Your task to perform on an android device: add a label to a message in the gmail app Image 0: 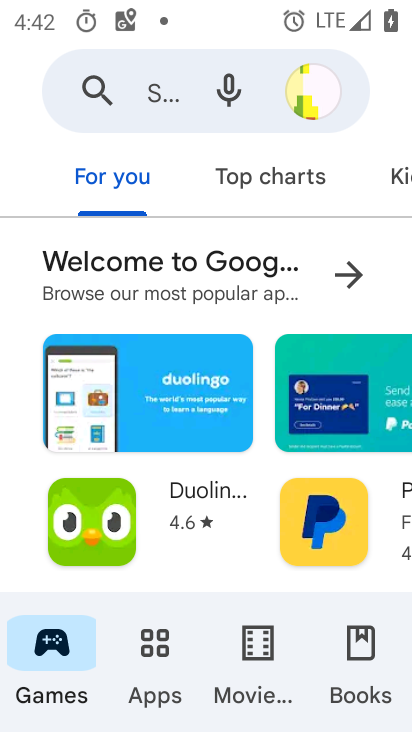
Step 0: press back button
Your task to perform on an android device: add a label to a message in the gmail app Image 1: 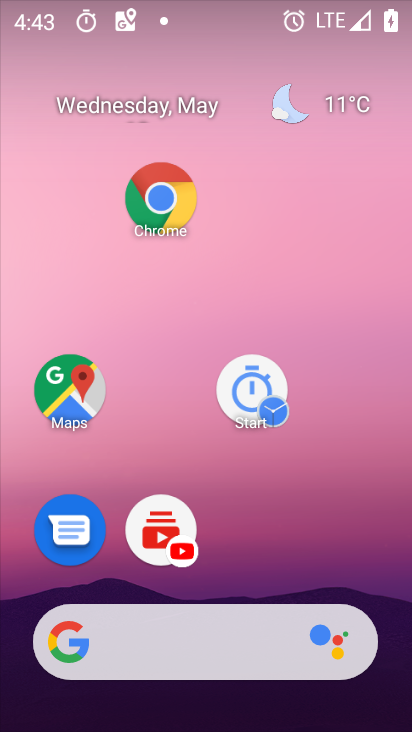
Step 1: drag from (303, 600) to (160, 148)
Your task to perform on an android device: add a label to a message in the gmail app Image 2: 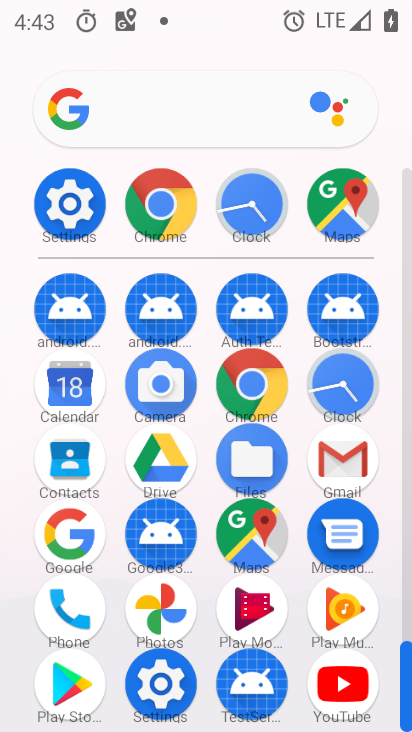
Step 2: click (355, 448)
Your task to perform on an android device: add a label to a message in the gmail app Image 3: 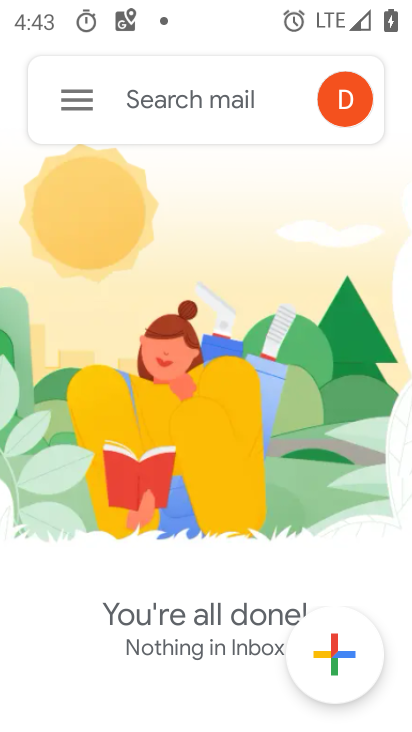
Step 3: click (76, 108)
Your task to perform on an android device: add a label to a message in the gmail app Image 4: 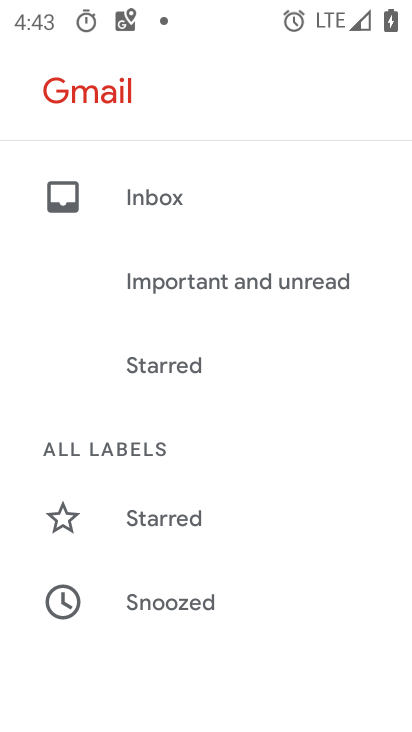
Step 4: drag from (186, 556) to (118, 146)
Your task to perform on an android device: add a label to a message in the gmail app Image 5: 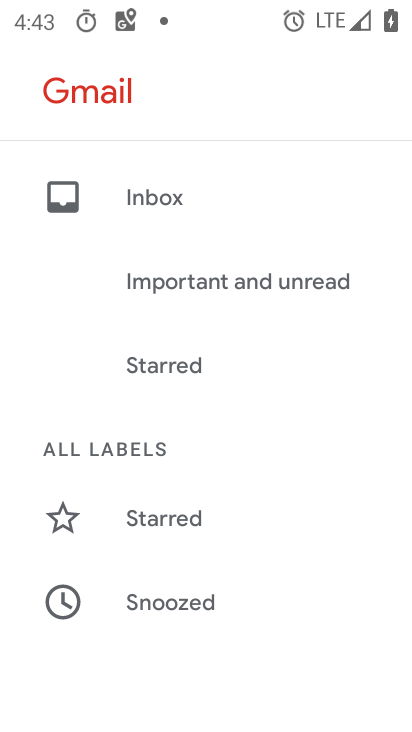
Step 5: drag from (203, 409) to (202, 127)
Your task to perform on an android device: add a label to a message in the gmail app Image 6: 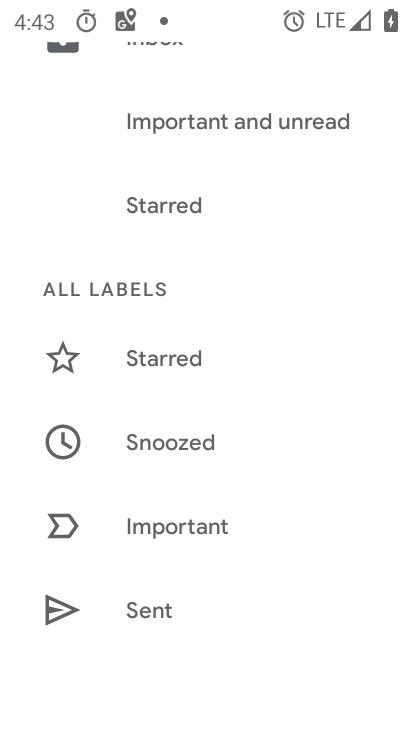
Step 6: drag from (181, 482) to (171, 214)
Your task to perform on an android device: add a label to a message in the gmail app Image 7: 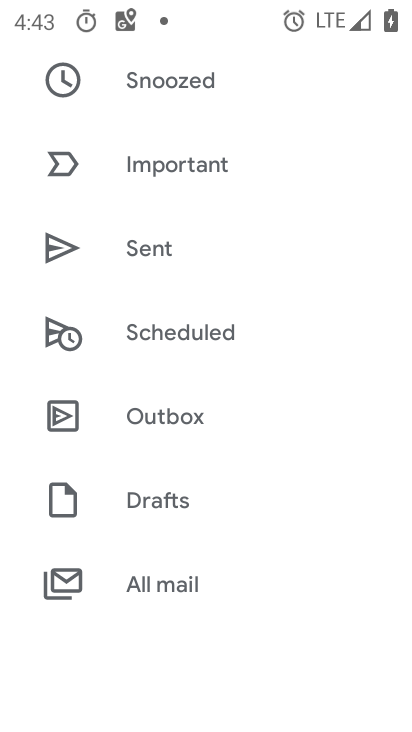
Step 7: drag from (159, 551) to (140, 237)
Your task to perform on an android device: add a label to a message in the gmail app Image 8: 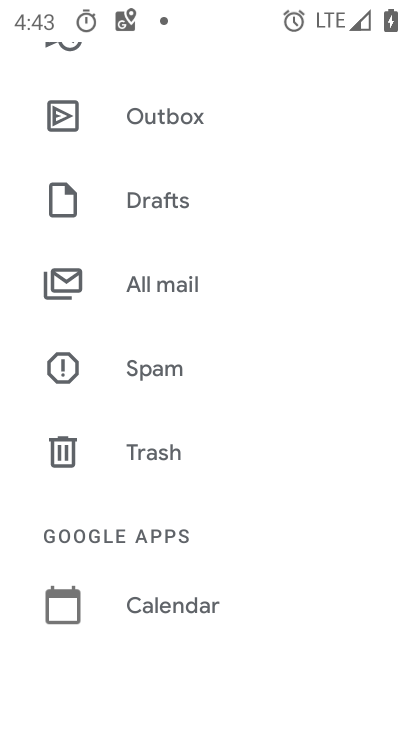
Step 8: click (167, 286)
Your task to perform on an android device: add a label to a message in the gmail app Image 9: 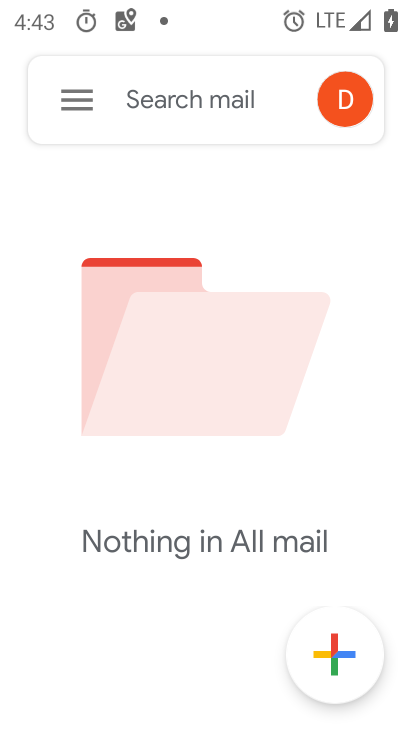
Step 9: task complete